Your task to perform on an android device: open app "Adobe Acrobat Reader: Edit PDF" (install if not already installed) Image 0: 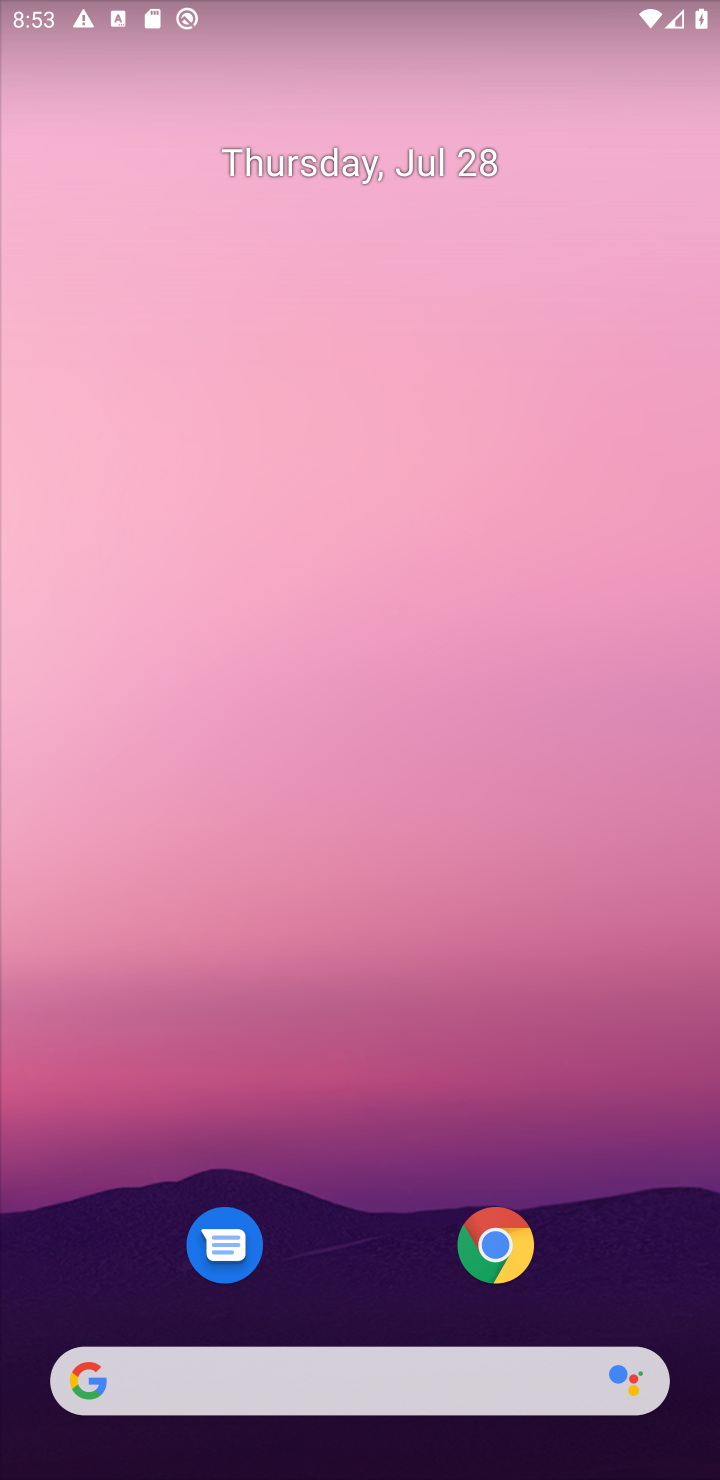
Step 0: drag from (396, 1196) to (343, 248)
Your task to perform on an android device: open app "Adobe Acrobat Reader: Edit PDF" (install if not already installed) Image 1: 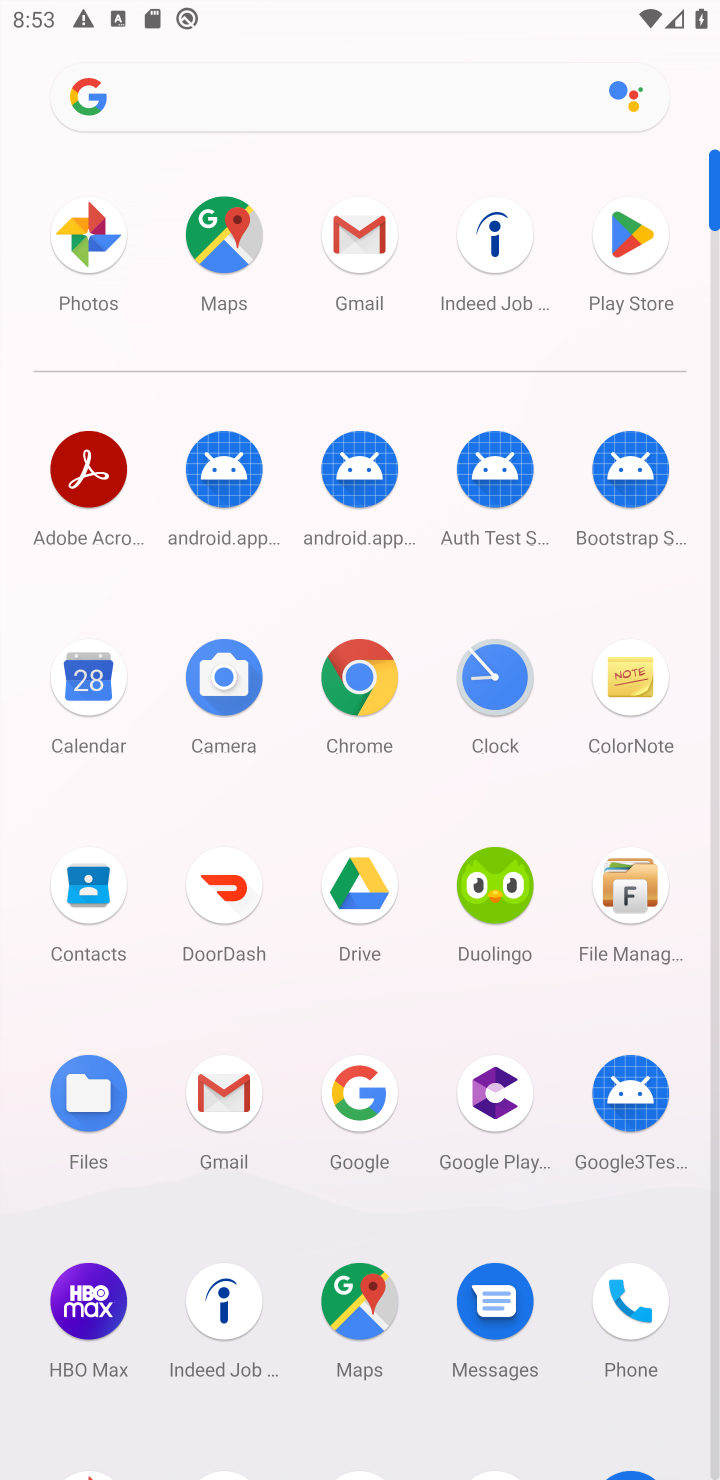
Step 1: click (598, 242)
Your task to perform on an android device: open app "Adobe Acrobat Reader: Edit PDF" (install if not already installed) Image 2: 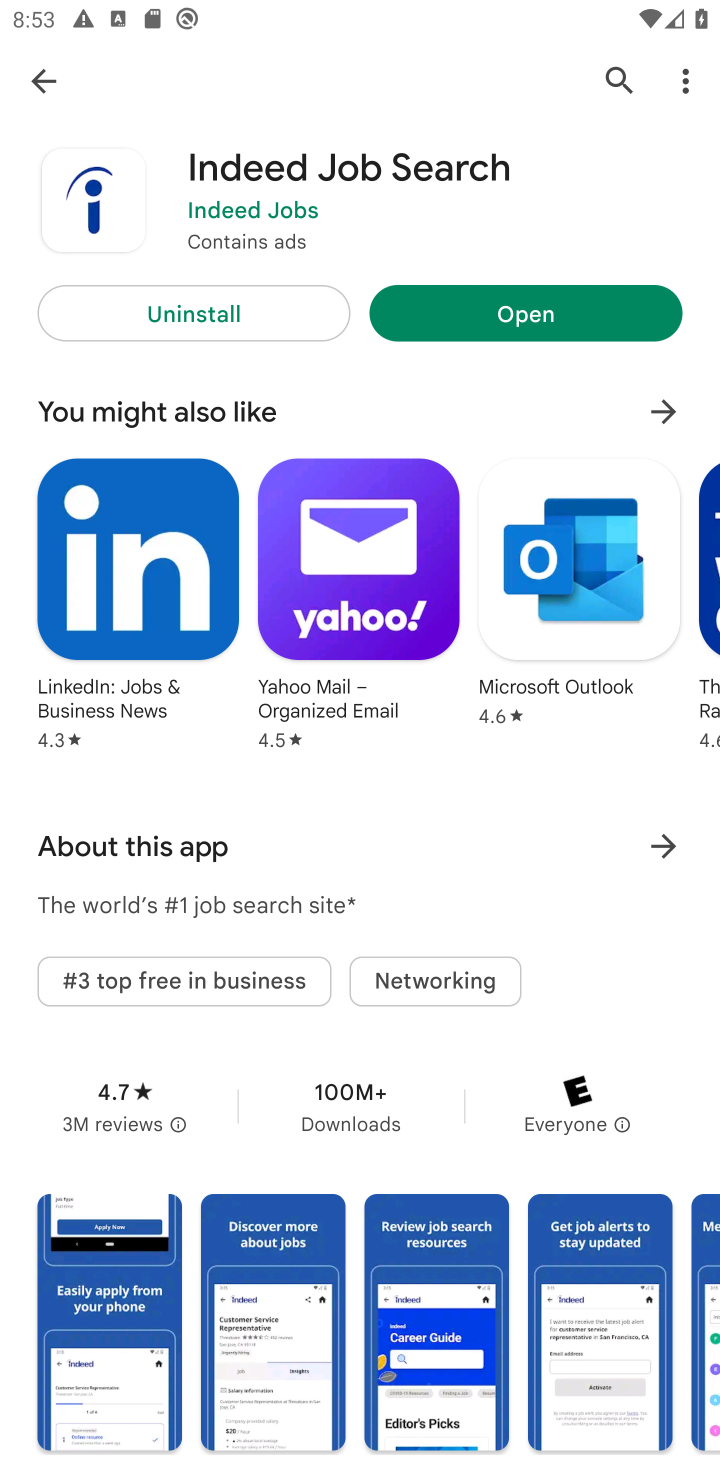
Step 2: click (606, 77)
Your task to perform on an android device: open app "Adobe Acrobat Reader: Edit PDF" (install if not already installed) Image 3: 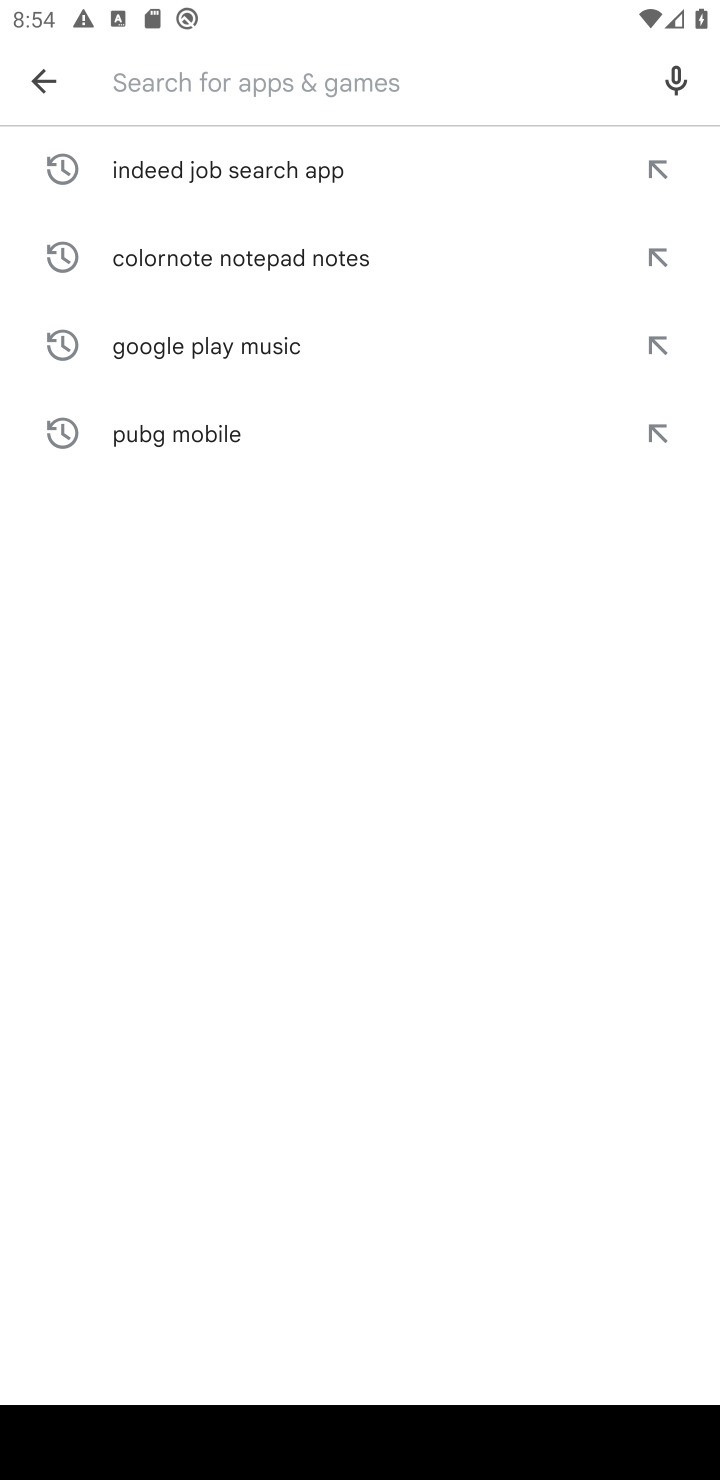
Step 3: type "Adobe Acrobat Reader: Edit PDF"
Your task to perform on an android device: open app "Adobe Acrobat Reader: Edit PDF" (install if not already installed) Image 4: 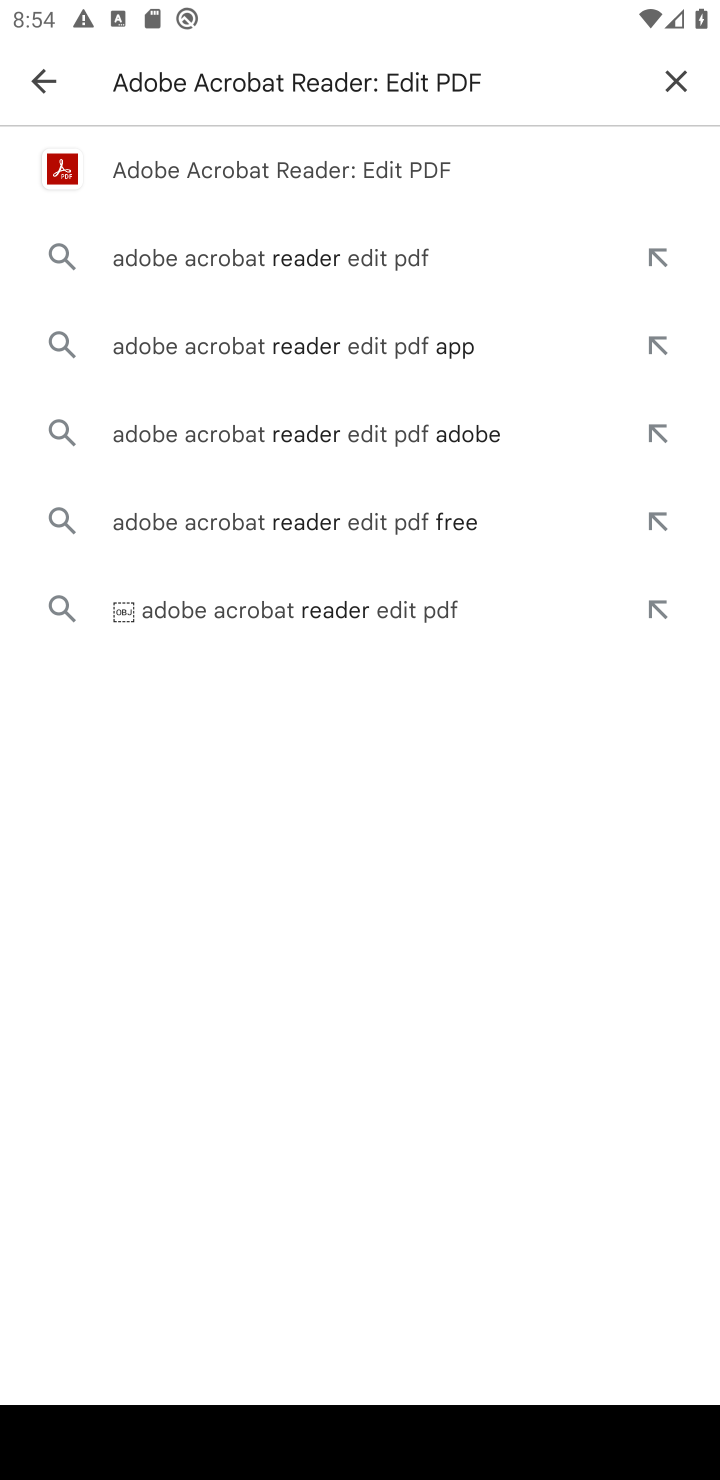
Step 4: click (308, 168)
Your task to perform on an android device: open app "Adobe Acrobat Reader: Edit PDF" (install if not already installed) Image 5: 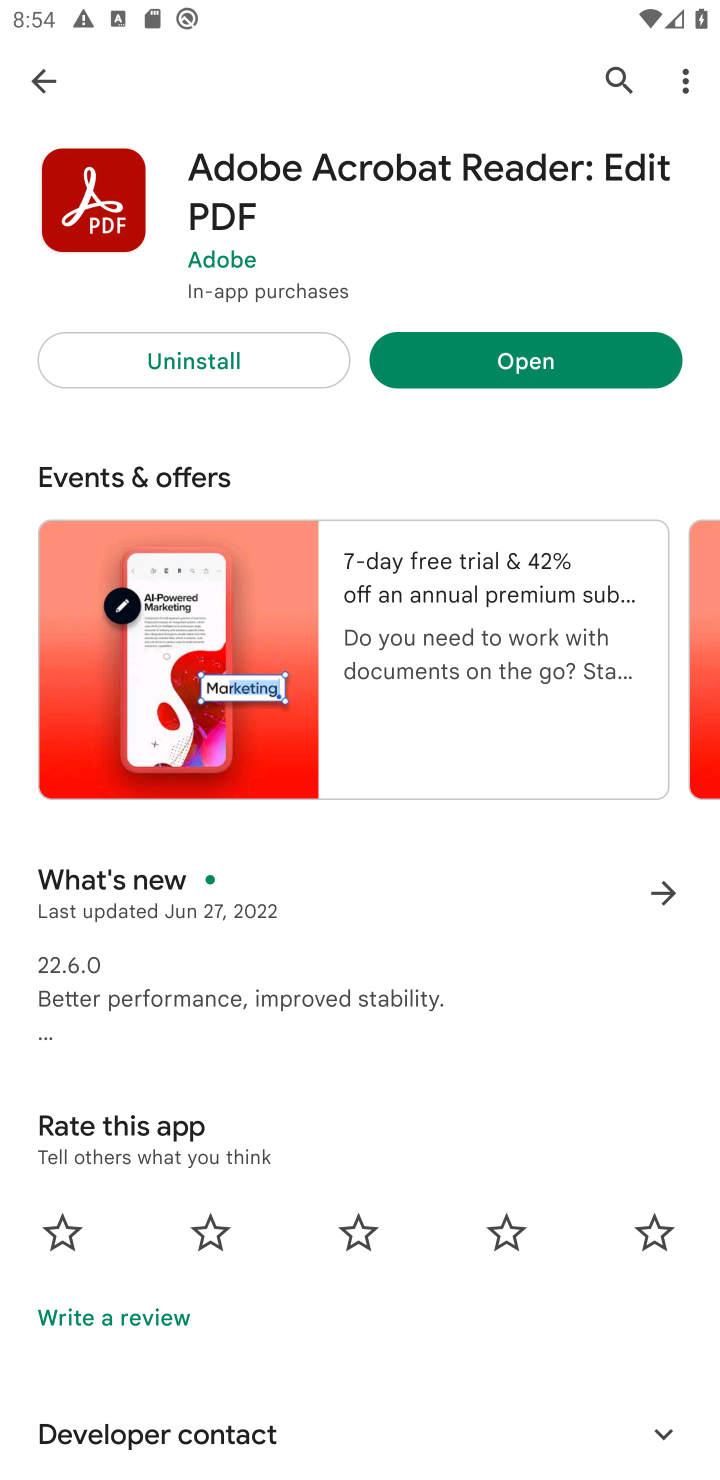
Step 5: click (536, 354)
Your task to perform on an android device: open app "Adobe Acrobat Reader: Edit PDF" (install if not already installed) Image 6: 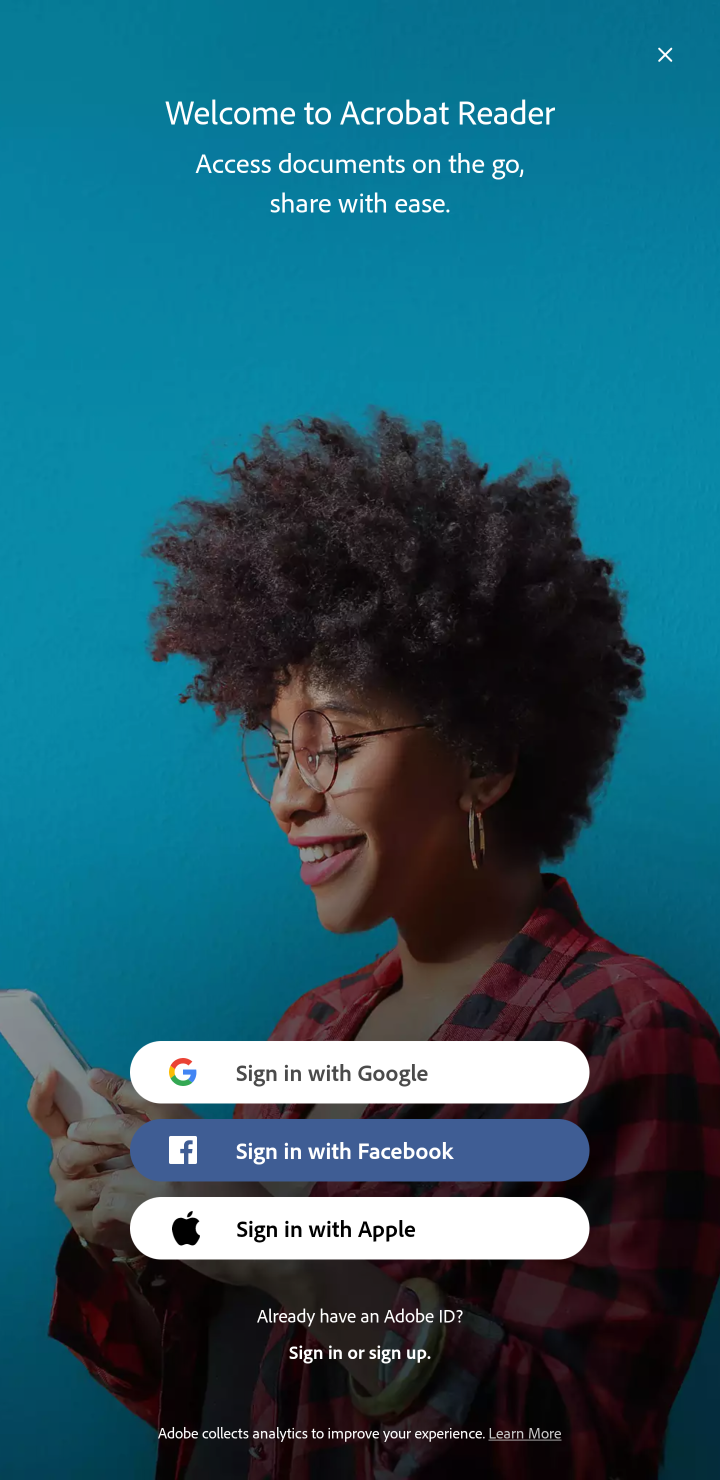
Step 6: task complete